Your task to perform on an android device: Go to ESPN.com Image 0: 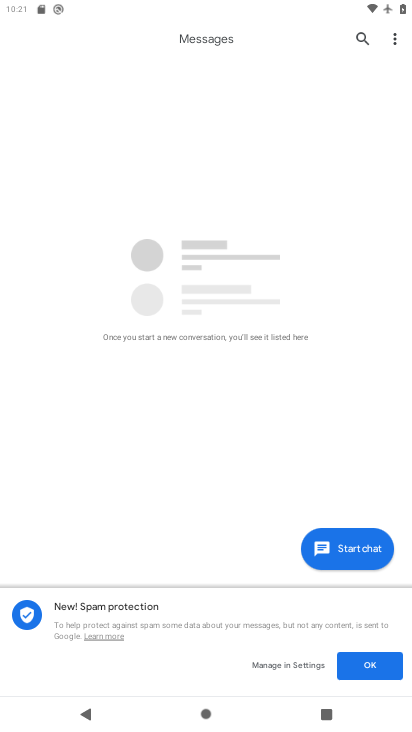
Step 0: press home button
Your task to perform on an android device: Go to ESPN.com Image 1: 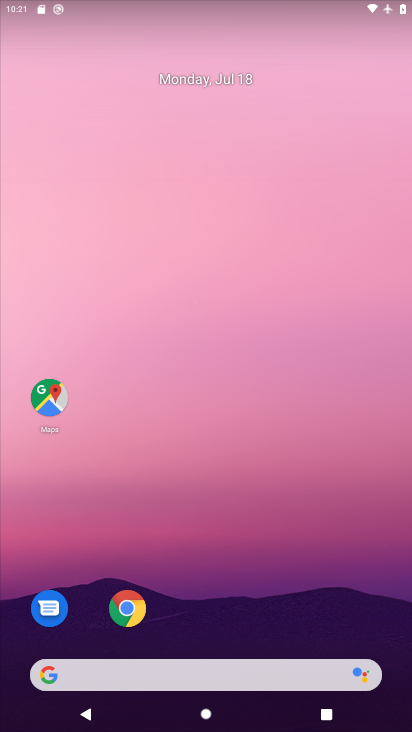
Step 1: drag from (200, 650) to (120, 94)
Your task to perform on an android device: Go to ESPN.com Image 2: 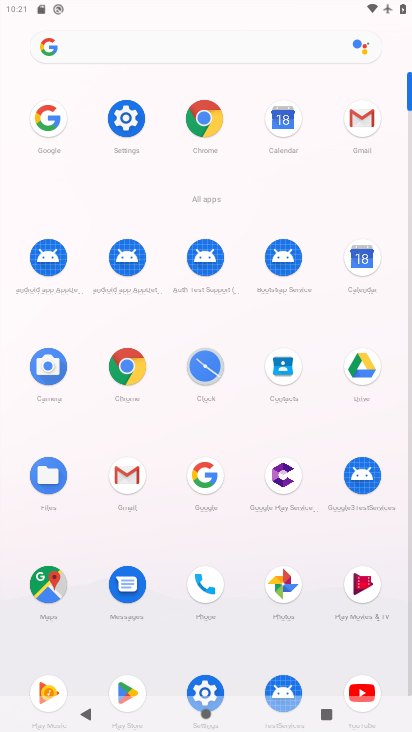
Step 2: click (207, 133)
Your task to perform on an android device: Go to ESPN.com Image 3: 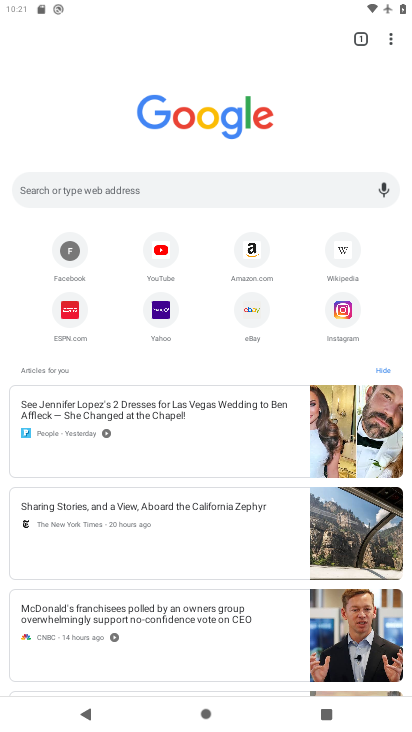
Step 3: click (63, 309)
Your task to perform on an android device: Go to ESPN.com Image 4: 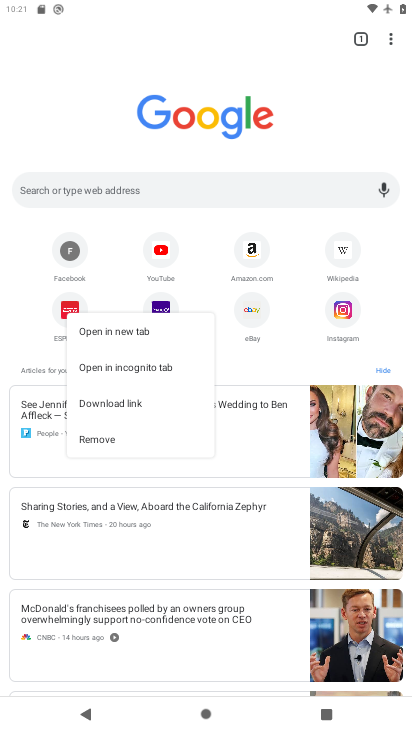
Step 4: click (64, 307)
Your task to perform on an android device: Go to ESPN.com Image 5: 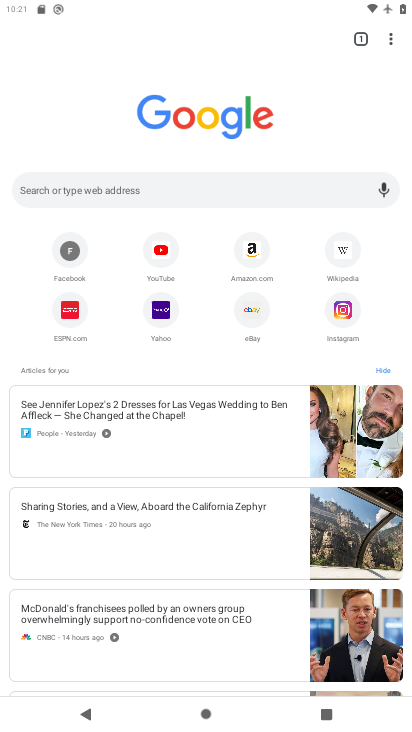
Step 5: click (76, 314)
Your task to perform on an android device: Go to ESPN.com Image 6: 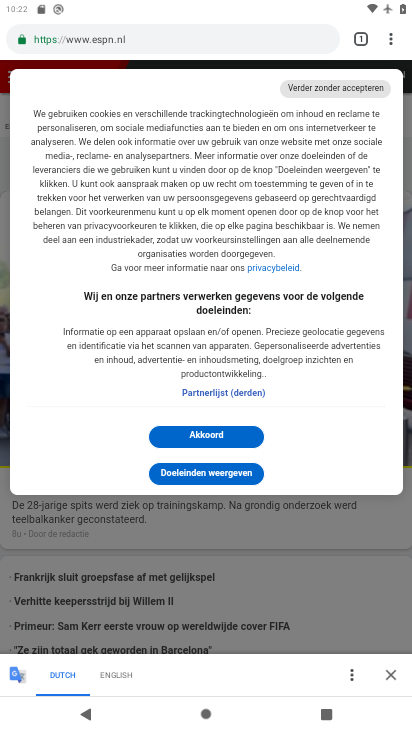
Step 6: task complete